Your task to perform on an android device: empty trash in the gmail app Image 0: 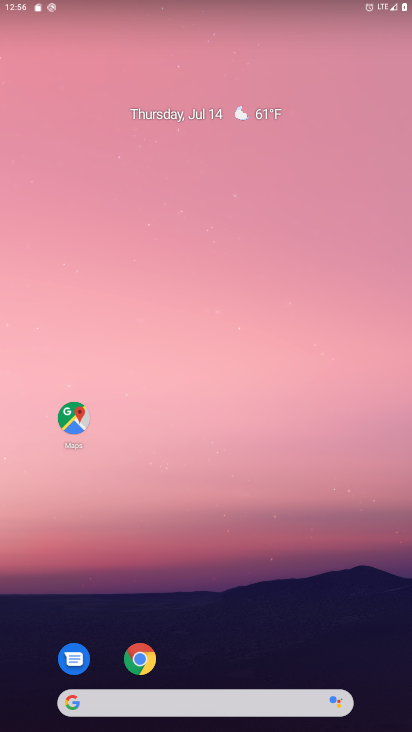
Step 0: drag from (199, 665) to (231, 185)
Your task to perform on an android device: empty trash in the gmail app Image 1: 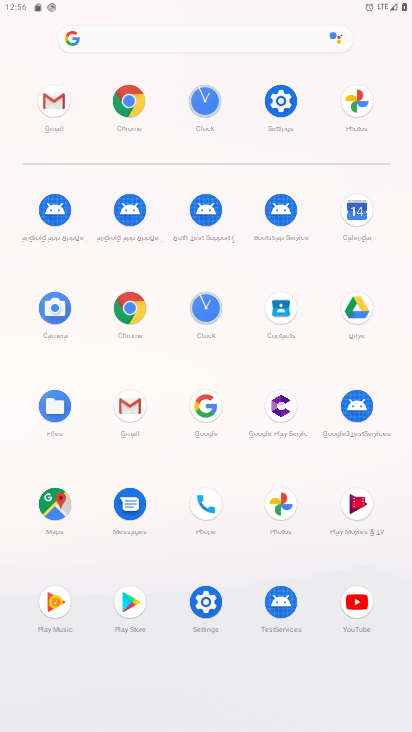
Step 1: click (52, 94)
Your task to perform on an android device: empty trash in the gmail app Image 2: 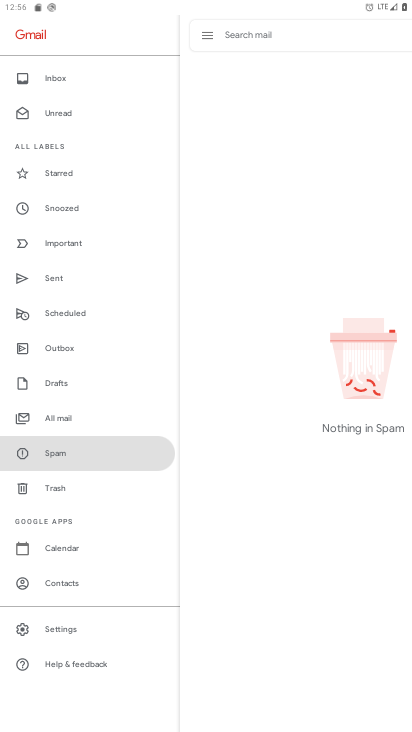
Step 2: click (58, 482)
Your task to perform on an android device: empty trash in the gmail app Image 3: 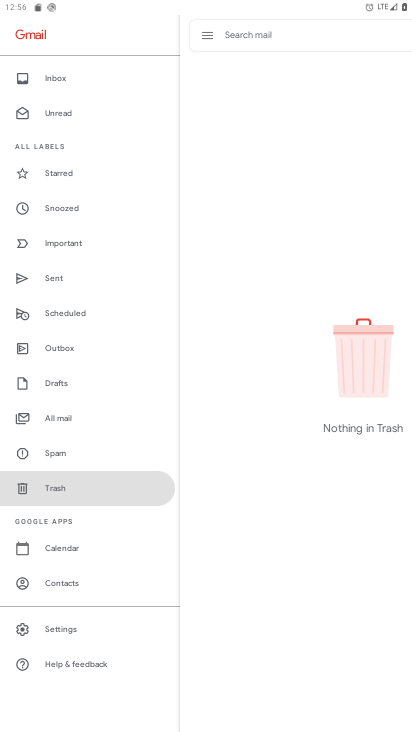
Step 3: task complete